Your task to perform on an android device: toggle airplane mode Image 0: 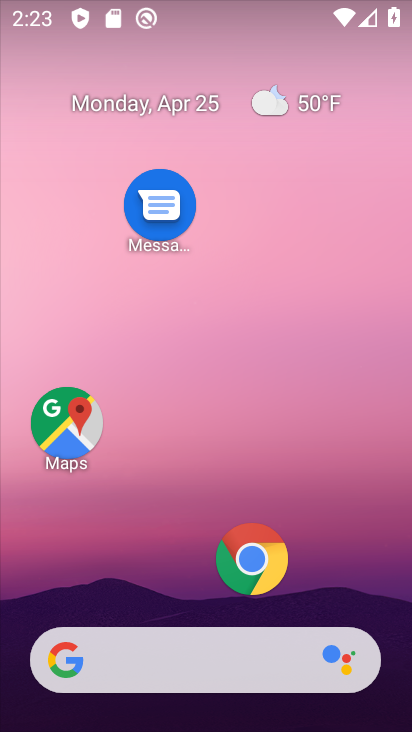
Step 0: drag from (143, 579) to (331, 7)
Your task to perform on an android device: toggle airplane mode Image 1: 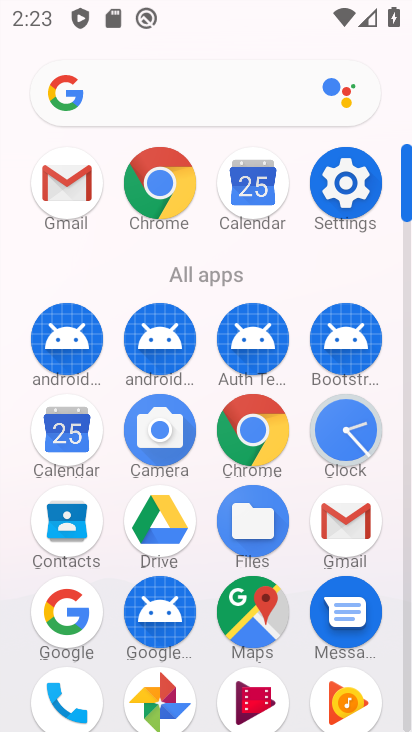
Step 1: click (351, 209)
Your task to perform on an android device: toggle airplane mode Image 2: 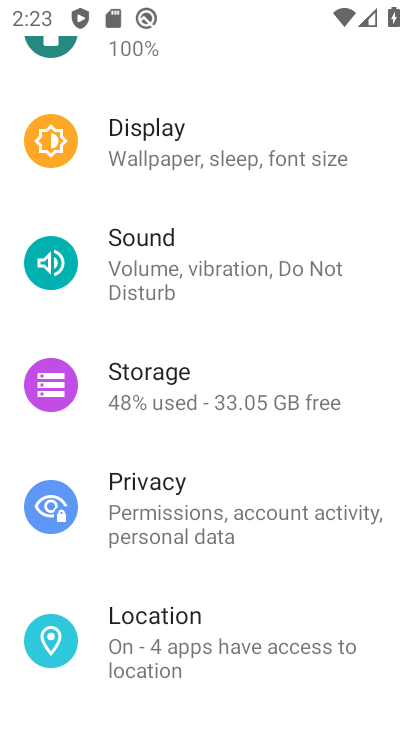
Step 2: drag from (300, 229) to (239, 681)
Your task to perform on an android device: toggle airplane mode Image 3: 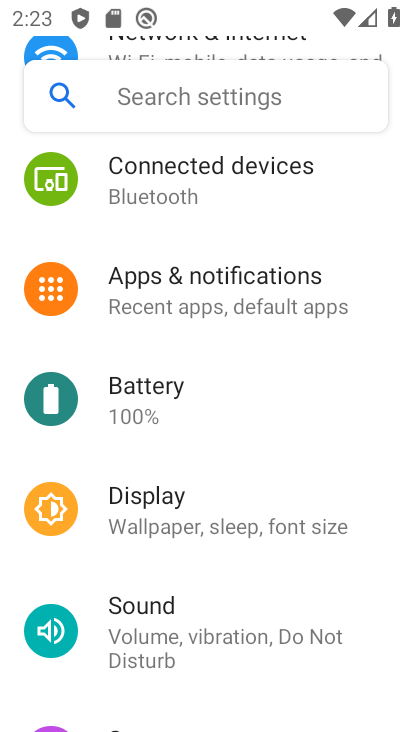
Step 3: drag from (272, 269) to (244, 719)
Your task to perform on an android device: toggle airplane mode Image 4: 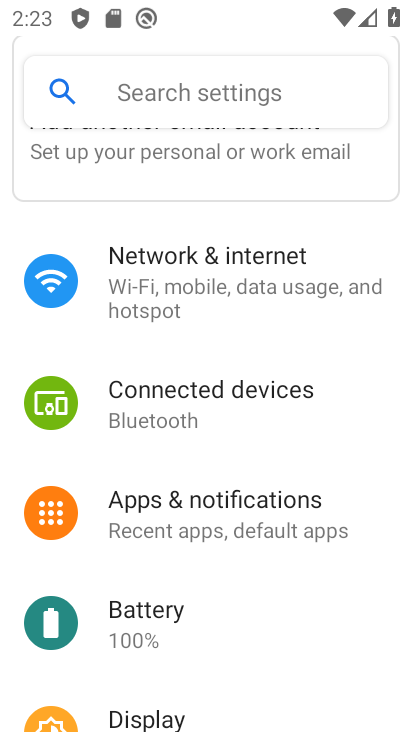
Step 4: click (229, 299)
Your task to perform on an android device: toggle airplane mode Image 5: 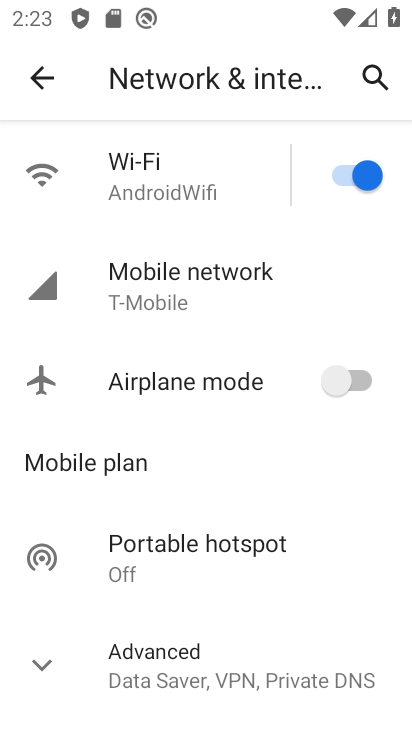
Step 5: click (359, 384)
Your task to perform on an android device: toggle airplane mode Image 6: 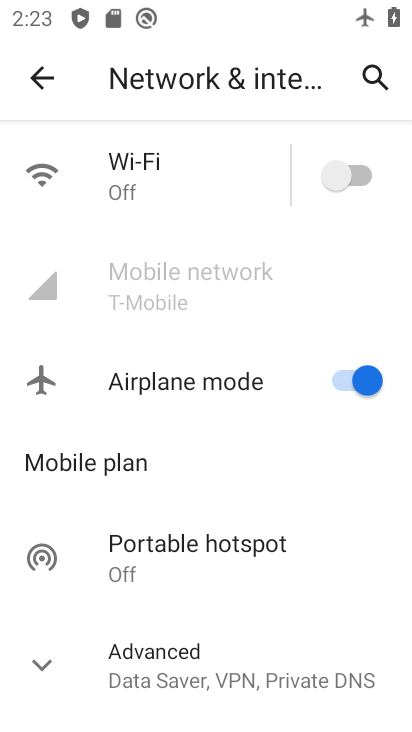
Step 6: task complete